Your task to perform on an android device: change text size in settings app Image 0: 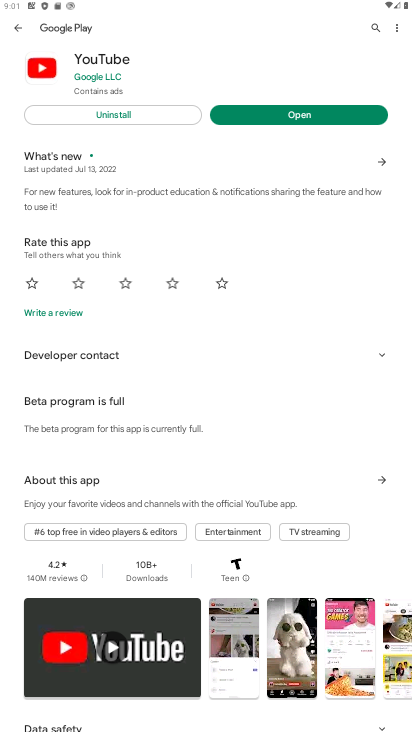
Step 0: press home button
Your task to perform on an android device: change text size in settings app Image 1: 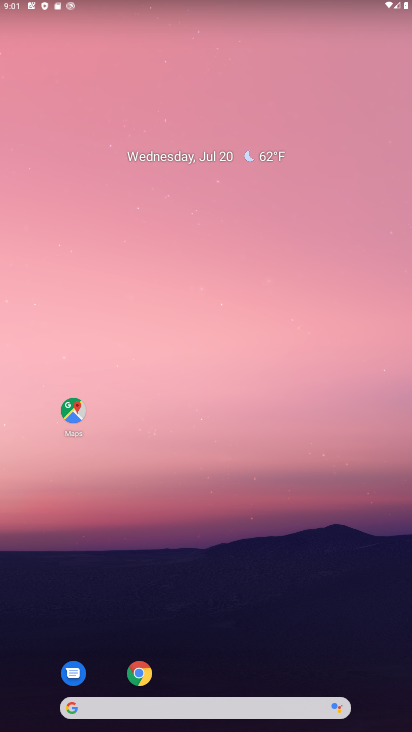
Step 1: drag from (400, 709) to (387, 155)
Your task to perform on an android device: change text size in settings app Image 2: 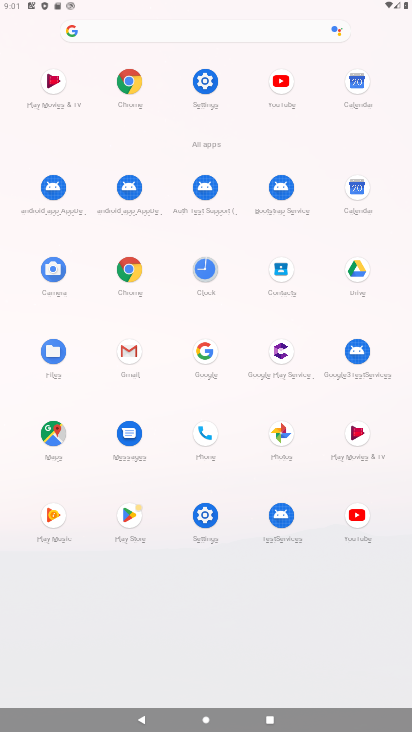
Step 2: click (197, 81)
Your task to perform on an android device: change text size in settings app Image 3: 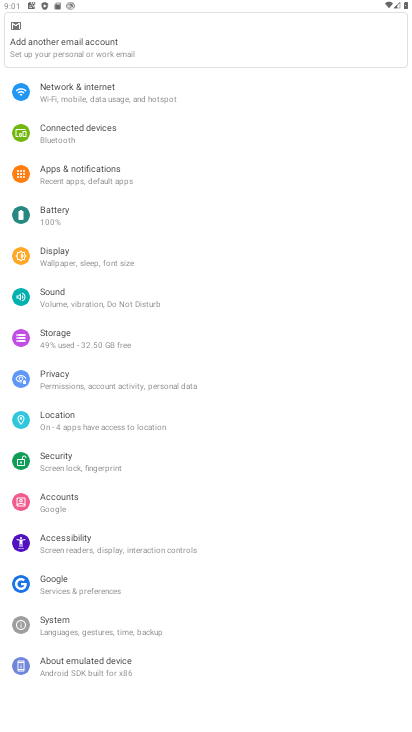
Step 3: click (61, 260)
Your task to perform on an android device: change text size in settings app Image 4: 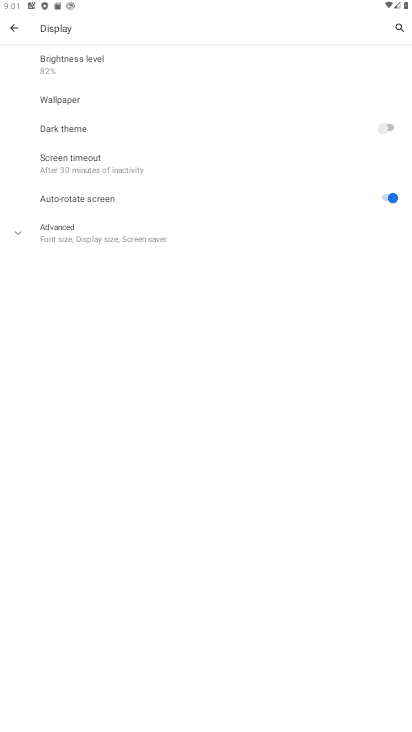
Step 4: click (35, 233)
Your task to perform on an android device: change text size in settings app Image 5: 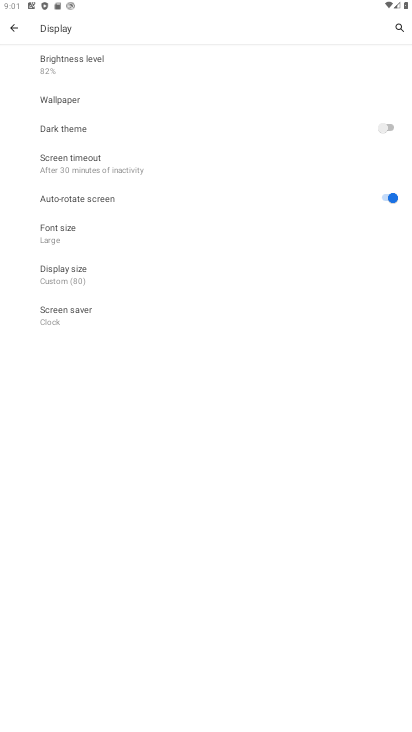
Step 5: click (74, 234)
Your task to perform on an android device: change text size in settings app Image 6: 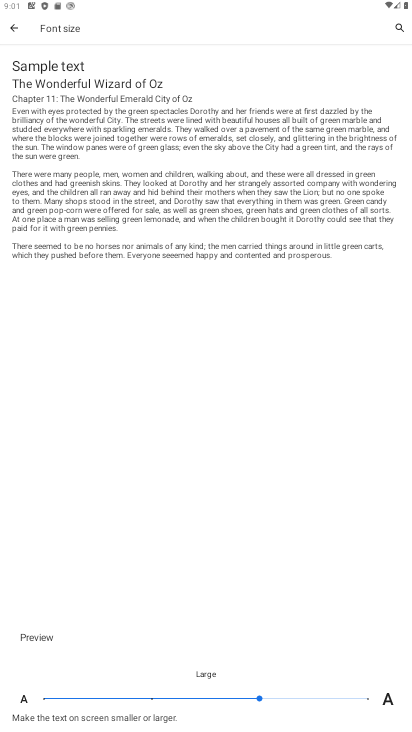
Step 6: click (368, 699)
Your task to perform on an android device: change text size in settings app Image 7: 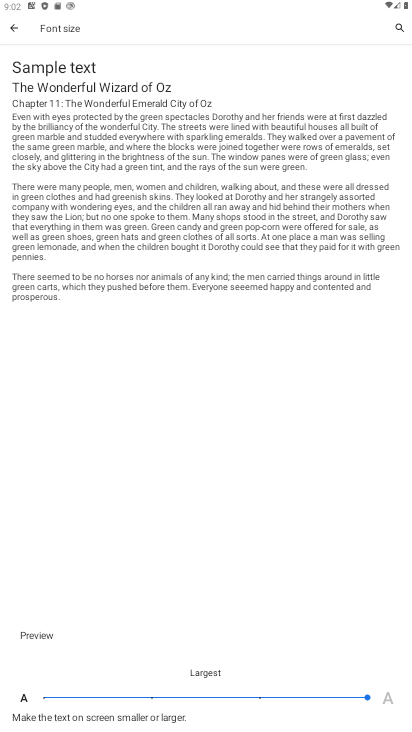
Step 7: task complete